Your task to perform on an android device: Open accessibility settings Image 0: 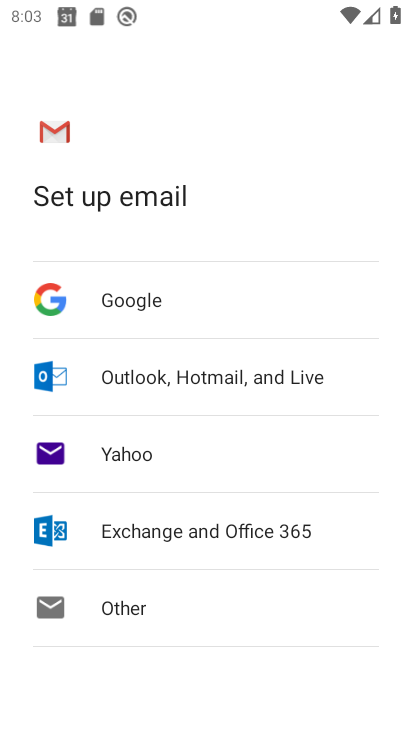
Step 0: press home button
Your task to perform on an android device: Open accessibility settings Image 1: 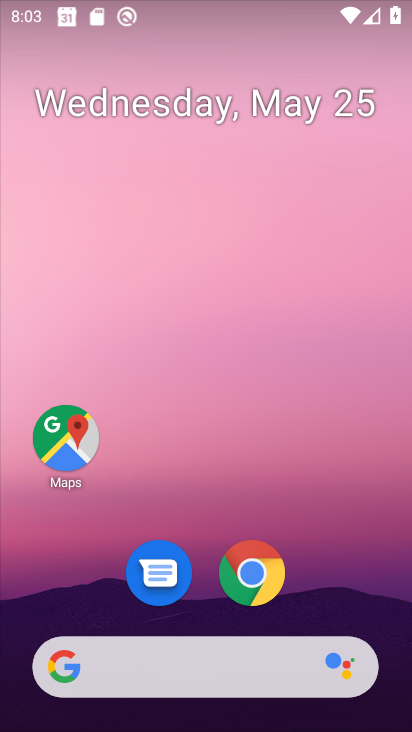
Step 1: drag from (388, 711) to (301, 269)
Your task to perform on an android device: Open accessibility settings Image 2: 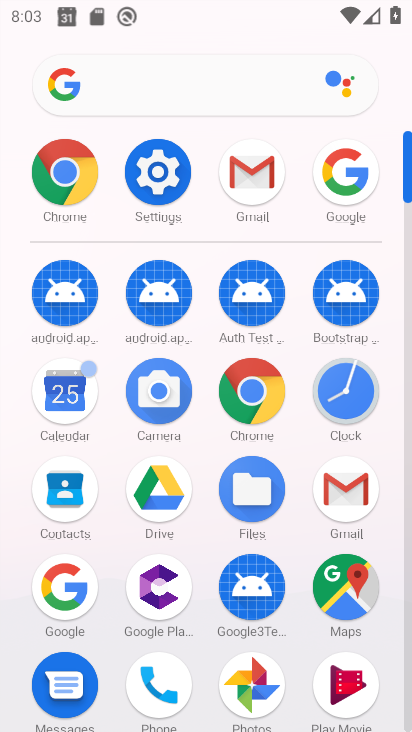
Step 2: click (158, 174)
Your task to perform on an android device: Open accessibility settings Image 3: 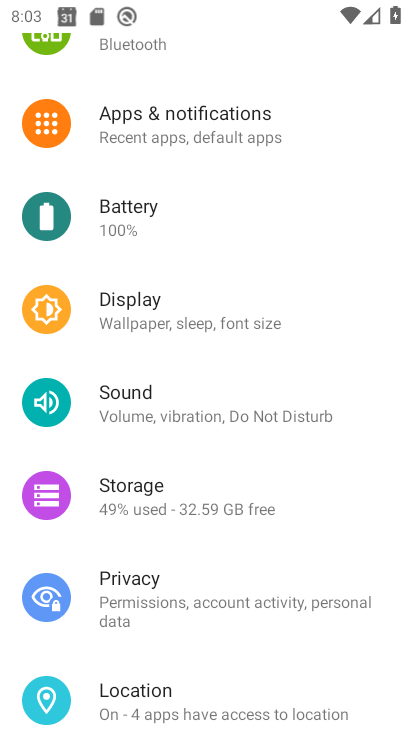
Step 3: drag from (369, 709) to (348, 195)
Your task to perform on an android device: Open accessibility settings Image 4: 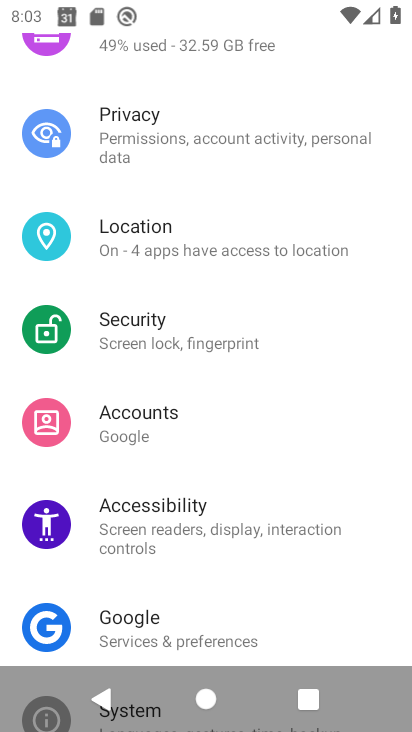
Step 4: drag from (329, 640) to (326, 434)
Your task to perform on an android device: Open accessibility settings Image 5: 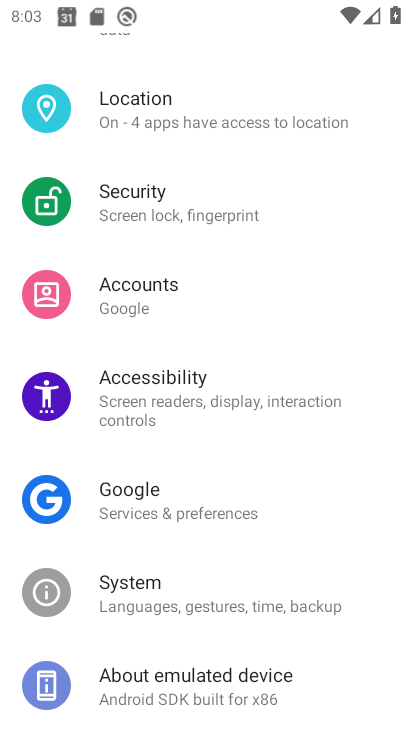
Step 5: click (151, 426)
Your task to perform on an android device: Open accessibility settings Image 6: 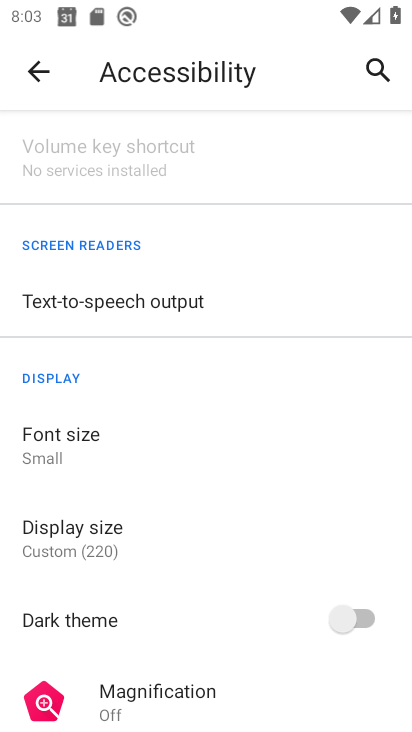
Step 6: task complete